Your task to perform on an android device: turn on notifications settings in the gmail app Image 0: 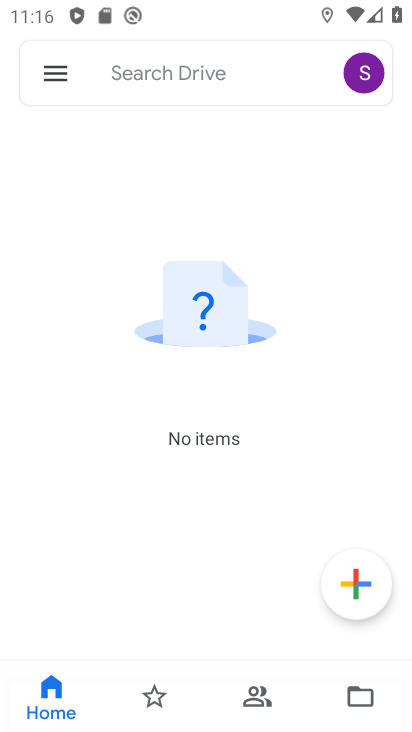
Step 0: press home button
Your task to perform on an android device: turn on notifications settings in the gmail app Image 1: 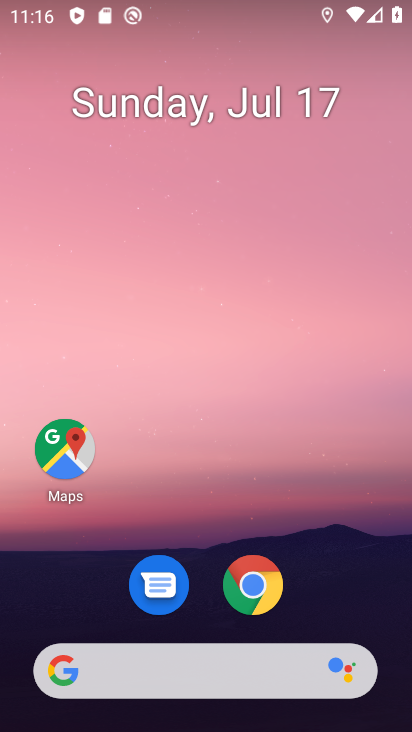
Step 1: drag from (347, 567) to (330, 28)
Your task to perform on an android device: turn on notifications settings in the gmail app Image 2: 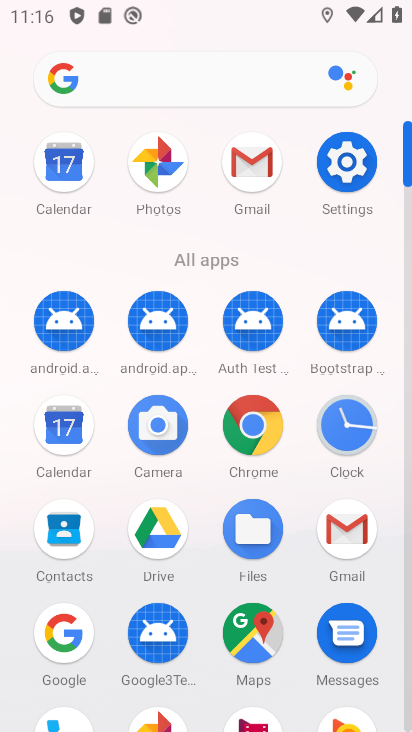
Step 2: click (261, 165)
Your task to perform on an android device: turn on notifications settings in the gmail app Image 3: 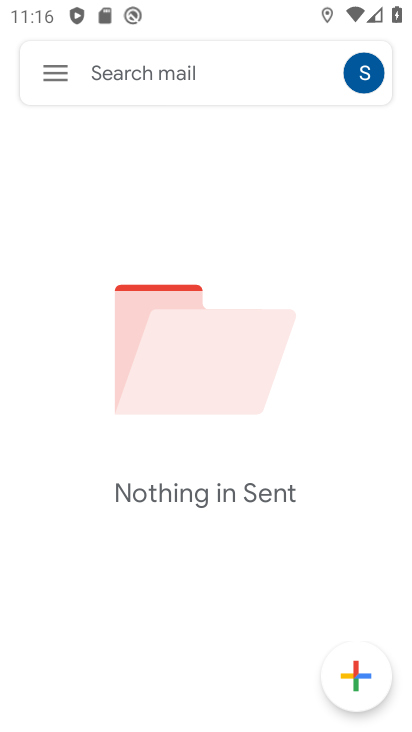
Step 3: click (58, 73)
Your task to perform on an android device: turn on notifications settings in the gmail app Image 4: 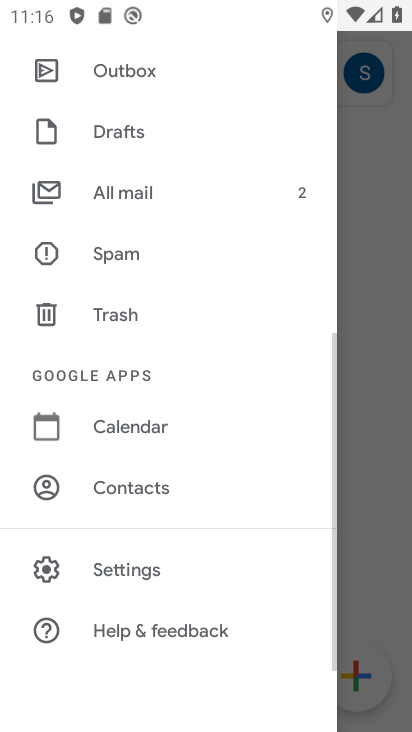
Step 4: click (114, 564)
Your task to perform on an android device: turn on notifications settings in the gmail app Image 5: 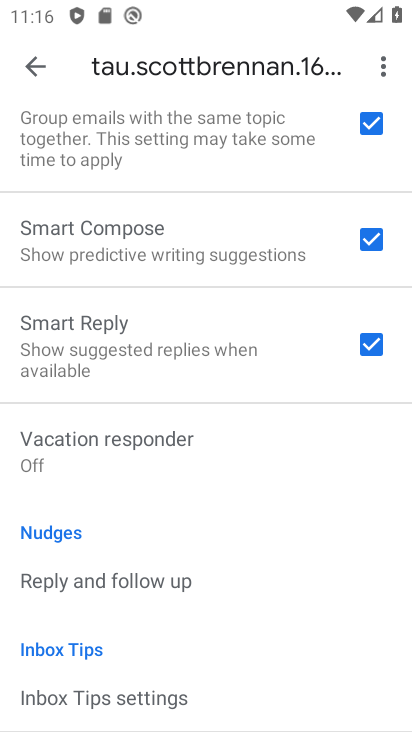
Step 5: drag from (127, 152) to (162, 525)
Your task to perform on an android device: turn on notifications settings in the gmail app Image 6: 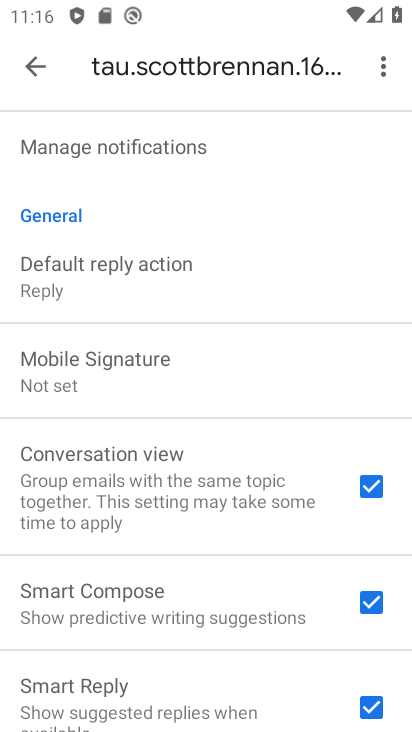
Step 6: drag from (202, 215) to (206, 623)
Your task to perform on an android device: turn on notifications settings in the gmail app Image 7: 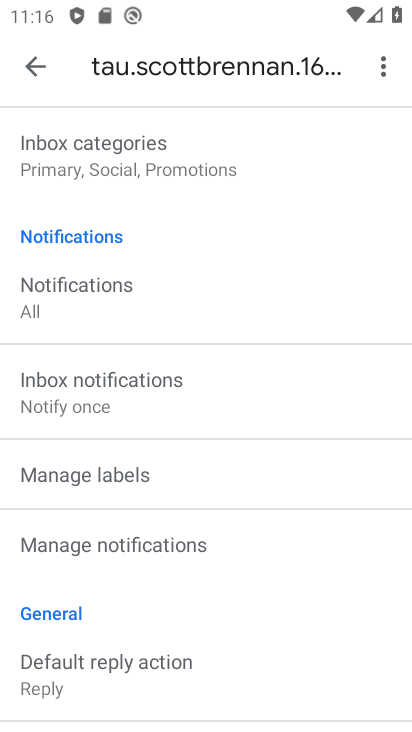
Step 7: click (188, 543)
Your task to perform on an android device: turn on notifications settings in the gmail app Image 8: 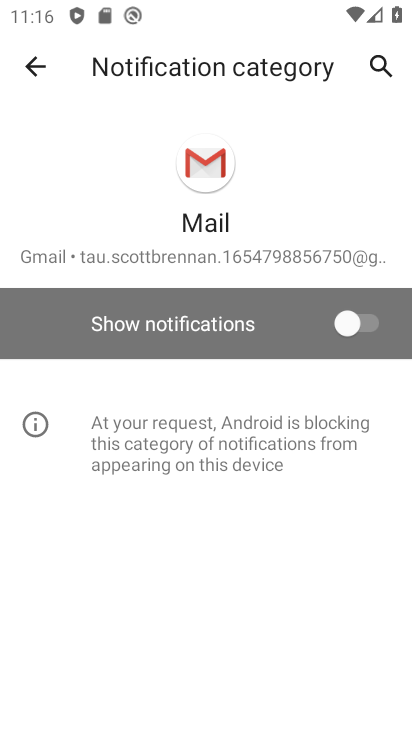
Step 8: click (362, 314)
Your task to perform on an android device: turn on notifications settings in the gmail app Image 9: 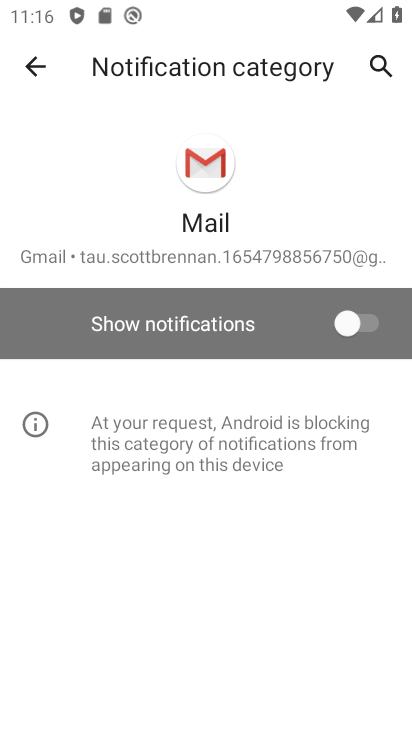
Step 9: click (369, 328)
Your task to perform on an android device: turn on notifications settings in the gmail app Image 10: 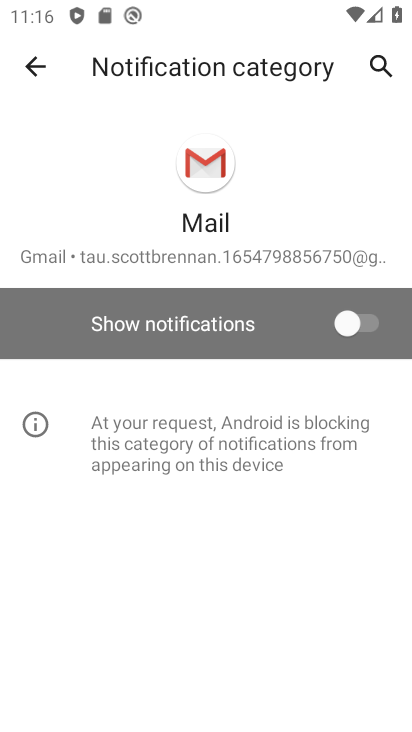
Step 10: click (51, 58)
Your task to perform on an android device: turn on notifications settings in the gmail app Image 11: 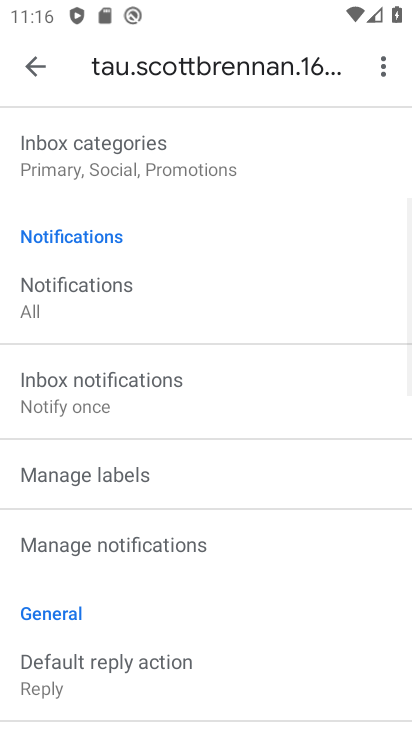
Step 11: click (54, 59)
Your task to perform on an android device: turn on notifications settings in the gmail app Image 12: 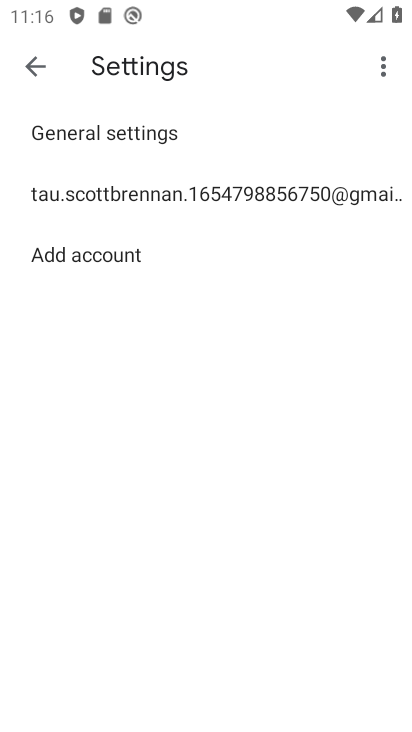
Step 12: click (105, 126)
Your task to perform on an android device: turn on notifications settings in the gmail app Image 13: 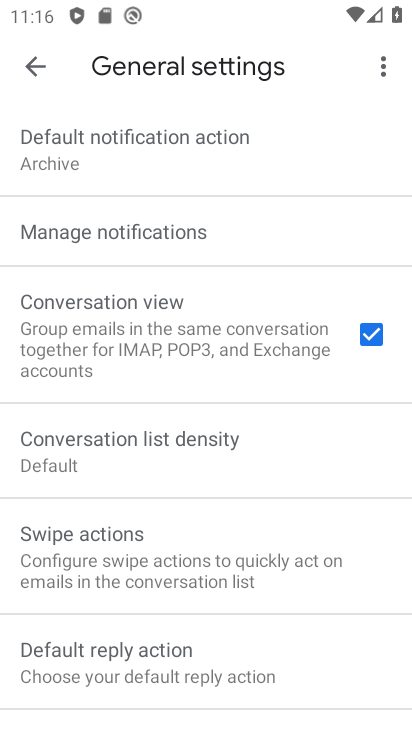
Step 13: click (188, 220)
Your task to perform on an android device: turn on notifications settings in the gmail app Image 14: 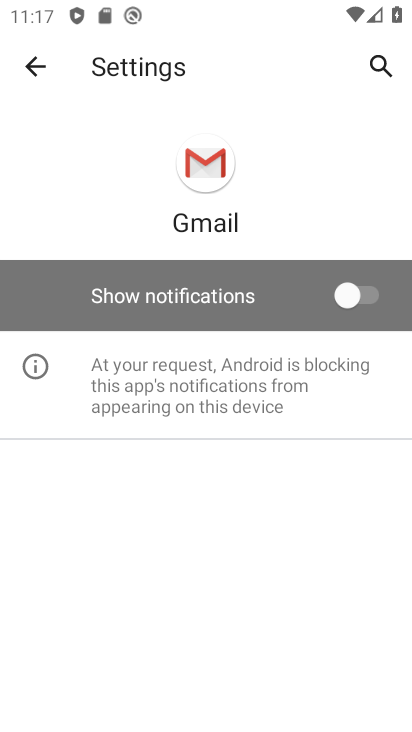
Step 14: click (367, 303)
Your task to perform on an android device: turn on notifications settings in the gmail app Image 15: 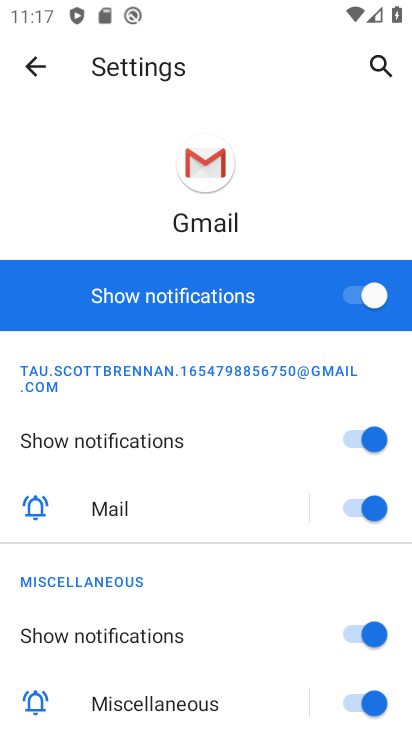
Step 15: task complete